Your task to perform on an android device: Clear the shopping cart on costco. Search for "macbook" on costco, select the first entry, add it to the cart, then select checkout. Image 0: 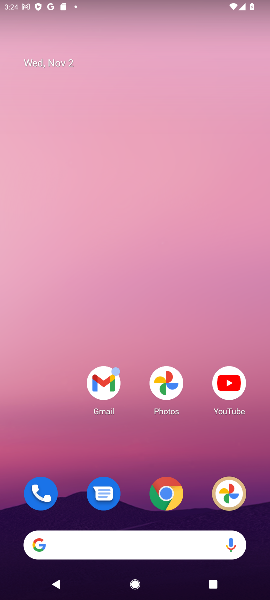
Step 0: drag from (132, 438) to (156, 155)
Your task to perform on an android device: Clear the shopping cart on costco. Search for "macbook" on costco, select the first entry, add it to the cart, then select checkout. Image 1: 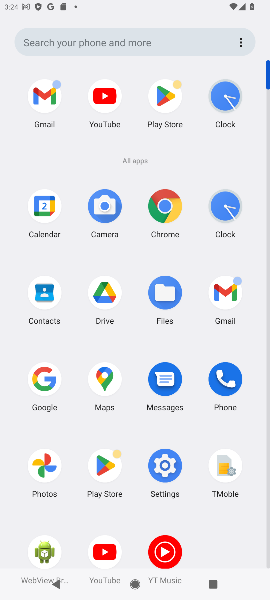
Step 1: click (44, 375)
Your task to perform on an android device: Clear the shopping cart on costco. Search for "macbook" on costco, select the first entry, add it to the cart, then select checkout. Image 2: 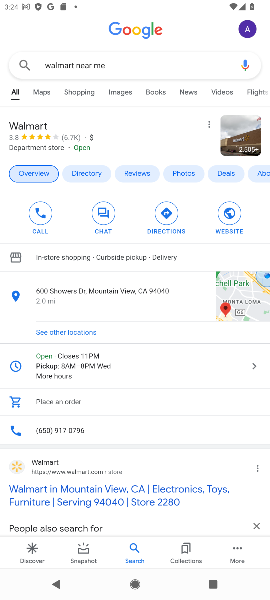
Step 2: click (115, 61)
Your task to perform on an android device: Clear the shopping cart on costco. Search for "macbook" on costco, select the first entry, add it to the cart, then select checkout. Image 3: 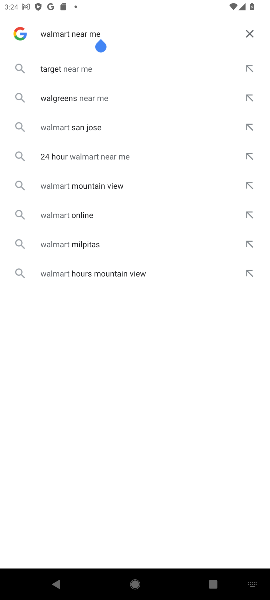
Step 3: click (250, 34)
Your task to perform on an android device: Clear the shopping cart on costco. Search for "macbook" on costco, select the first entry, add it to the cart, then select checkout. Image 4: 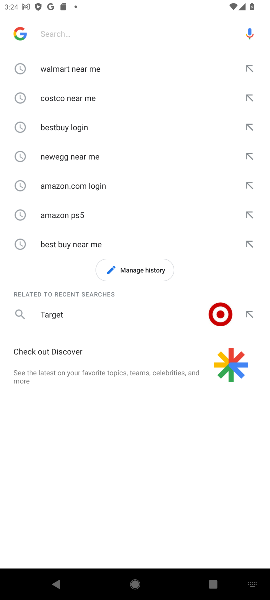
Step 4: click (95, 28)
Your task to perform on an android device: Clear the shopping cart on costco. Search for "macbook" on costco, select the first entry, add it to the cart, then select checkout. Image 5: 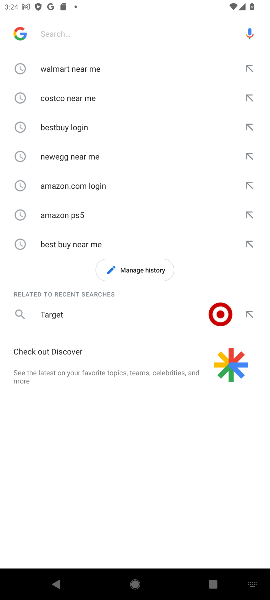
Step 5: type "costco "
Your task to perform on an android device: Clear the shopping cart on costco. Search for "macbook" on costco, select the first entry, add it to the cart, then select checkout. Image 6: 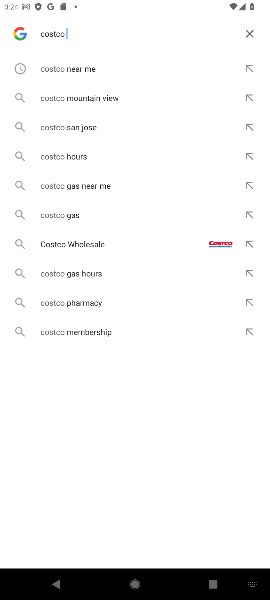
Step 6: click (71, 69)
Your task to perform on an android device: Clear the shopping cart on costco. Search for "macbook" on costco, select the first entry, add it to the cart, then select checkout. Image 7: 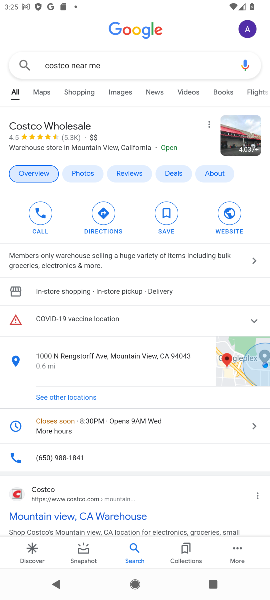
Step 7: click (12, 489)
Your task to perform on an android device: Clear the shopping cart on costco. Search for "macbook" on costco, select the first entry, add it to the cart, then select checkout. Image 8: 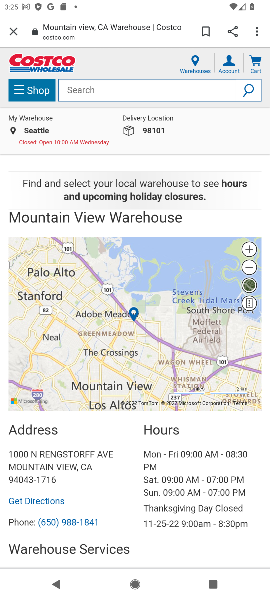
Step 8: click (95, 86)
Your task to perform on an android device: Clear the shopping cart on costco. Search for "macbook" on costco, select the first entry, add it to the cart, then select checkout. Image 9: 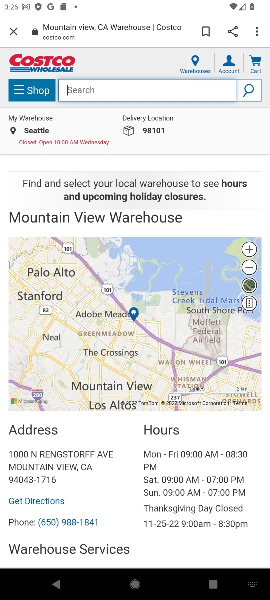
Step 9: click (156, 84)
Your task to perform on an android device: Clear the shopping cart on costco. Search for "macbook" on costco, select the first entry, add it to the cart, then select checkout. Image 10: 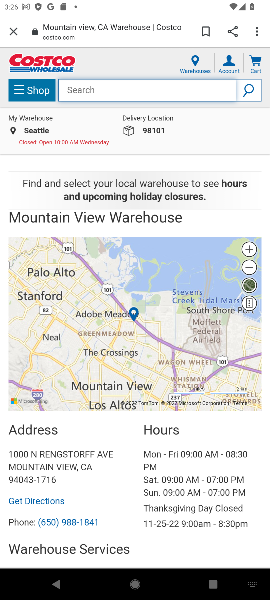
Step 10: type "macbook "
Your task to perform on an android device: Clear the shopping cart on costco. Search for "macbook" on costco, select the first entry, add it to the cart, then select checkout. Image 11: 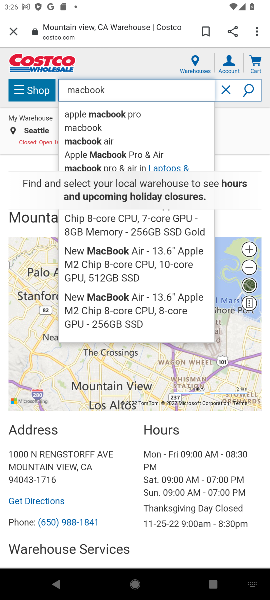
Step 11: click (102, 109)
Your task to perform on an android device: Clear the shopping cart on costco. Search for "macbook" on costco, select the first entry, add it to the cart, then select checkout. Image 12: 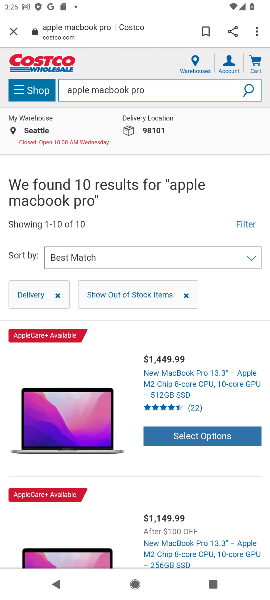
Step 12: drag from (153, 490) to (164, 283)
Your task to perform on an android device: Clear the shopping cart on costco. Search for "macbook" on costco, select the first entry, add it to the cart, then select checkout. Image 13: 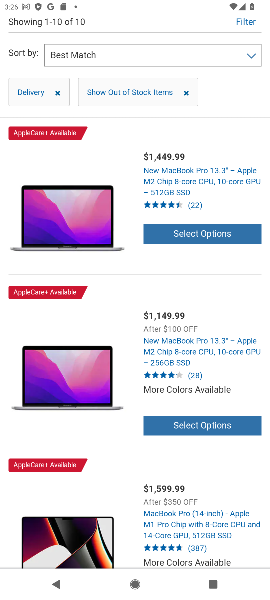
Step 13: click (172, 158)
Your task to perform on an android device: Clear the shopping cart on costco. Search for "macbook" on costco, select the first entry, add it to the cart, then select checkout. Image 14: 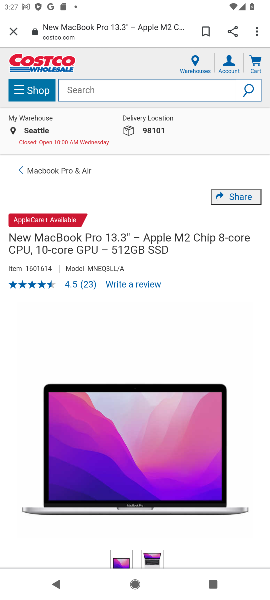
Step 14: drag from (126, 432) to (151, 210)
Your task to perform on an android device: Clear the shopping cart on costco. Search for "macbook" on costco, select the first entry, add it to the cart, then select checkout. Image 15: 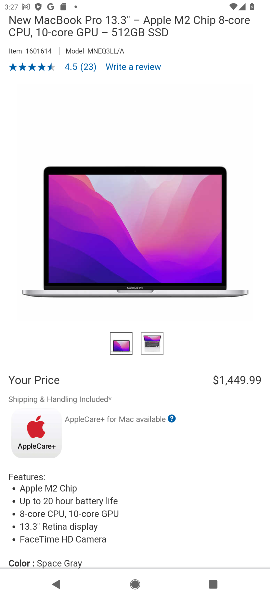
Step 15: drag from (115, 503) to (140, 231)
Your task to perform on an android device: Clear the shopping cart on costco. Search for "macbook" on costco, select the first entry, add it to the cart, then select checkout. Image 16: 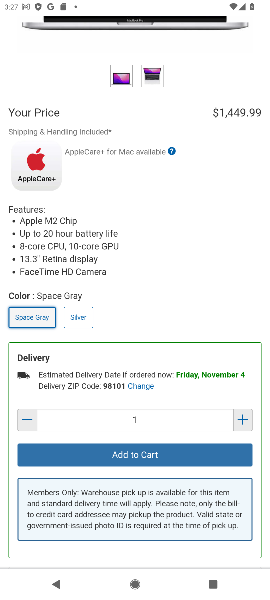
Step 16: click (151, 454)
Your task to perform on an android device: Clear the shopping cart on costco. Search for "macbook" on costco, select the first entry, add it to the cart, then select checkout. Image 17: 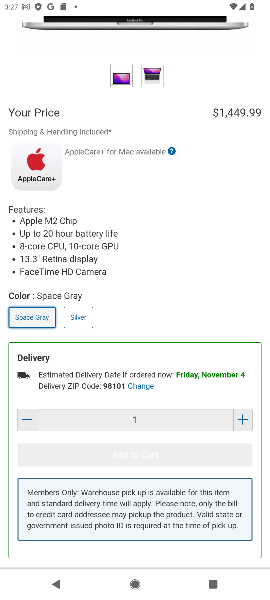
Step 17: task complete